Your task to perform on an android device: turn on javascript in the chrome app Image 0: 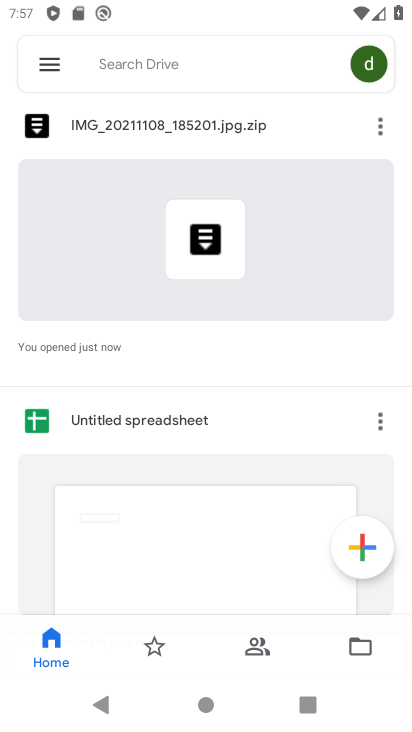
Step 0: press home button
Your task to perform on an android device: turn on javascript in the chrome app Image 1: 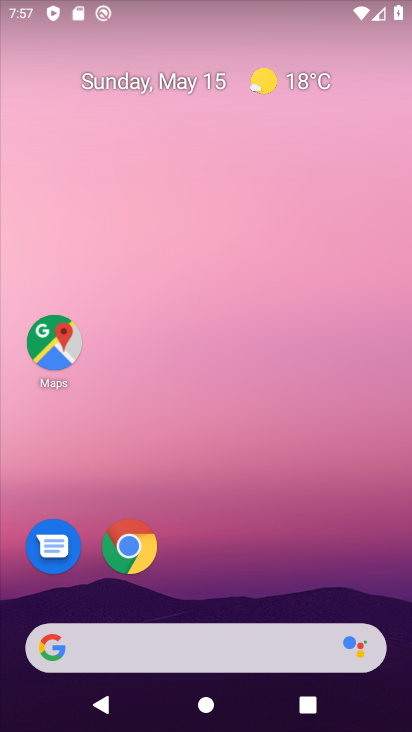
Step 1: drag from (291, 390) to (289, 219)
Your task to perform on an android device: turn on javascript in the chrome app Image 2: 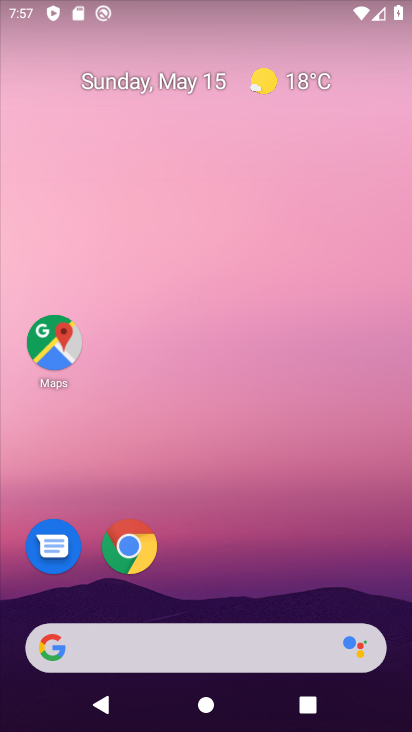
Step 2: drag from (245, 536) to (245, 180)
Your task to perform on an android device: turn on javascript in the chrome app Image 3: 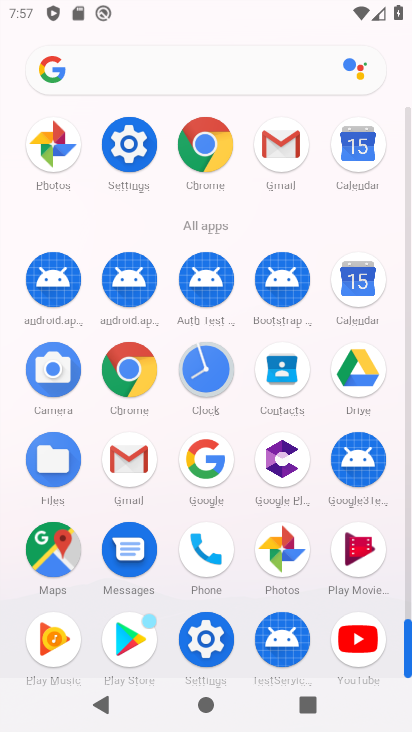
Step 3: click (199, 142)
Your task to perform on an android device: turn on javascript in the chrome app Image 4: 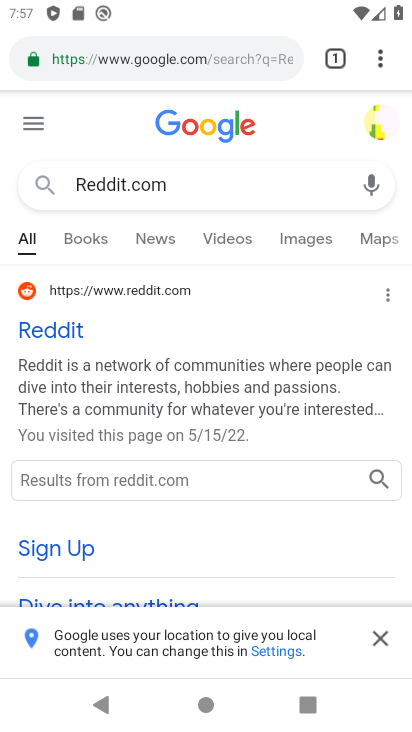
Step 4: click (366, 57)
Your task to perform on an android device: turn on javascript in the chrome app Image 5: 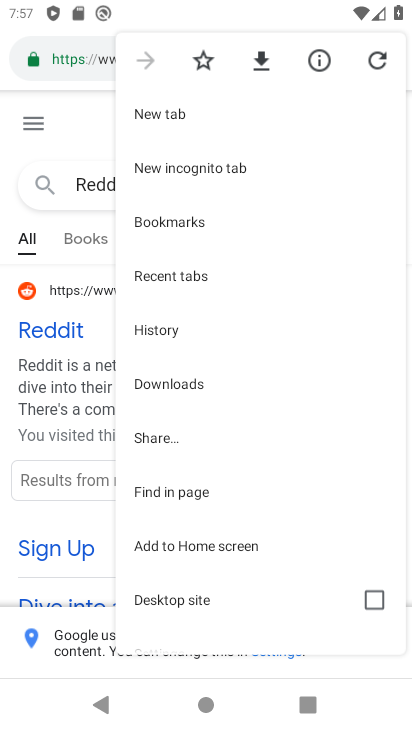
Step 5: drag from (213, 463) to (259, 204)
Your task to perform on an android device: turn on javascript in the chrome app Image 6: 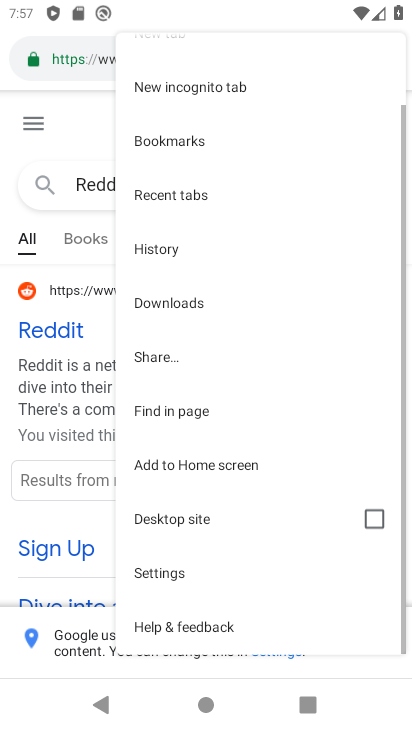
Step 6: click (152, 585)
Your task to perform on an android device: turn on javascript in the chrome app Image 7: 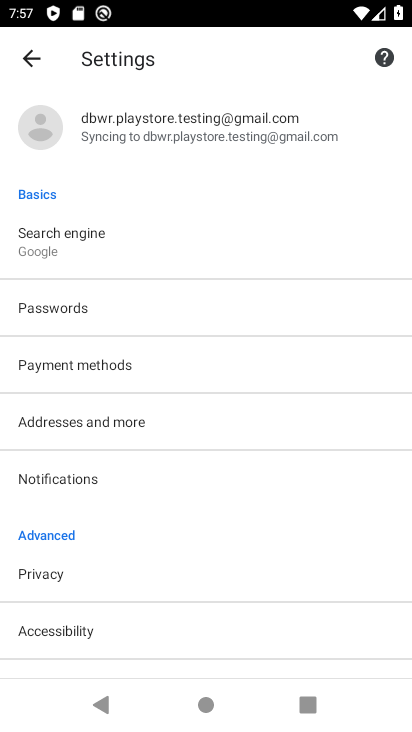
Step 7: drag from (128, 576) to (163, 333)
Your task to perform on an android device: turn on javascript in the chrome app Image 8: 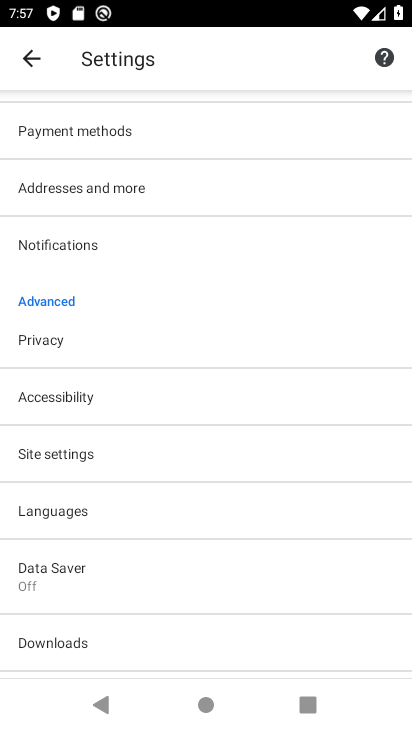
Step 8: drag from (92, 588) to (173, 461)
Your task to perform on an android device: turn on javascript in the chrome app Image 9: 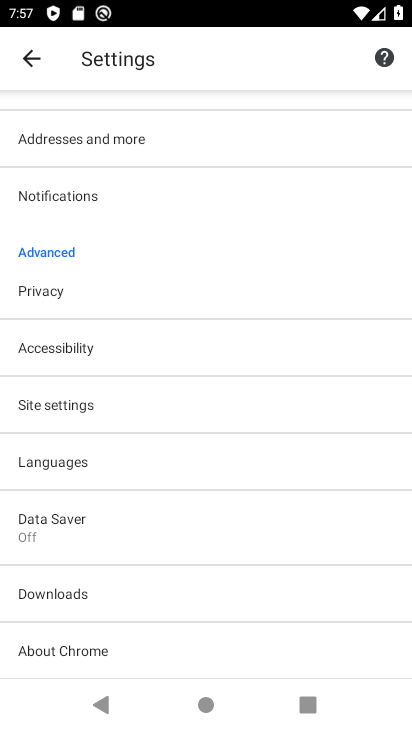
Step 9: click (139, 394)
Your task to perform on an android device: turn on javascript in the chrome app Image 10: 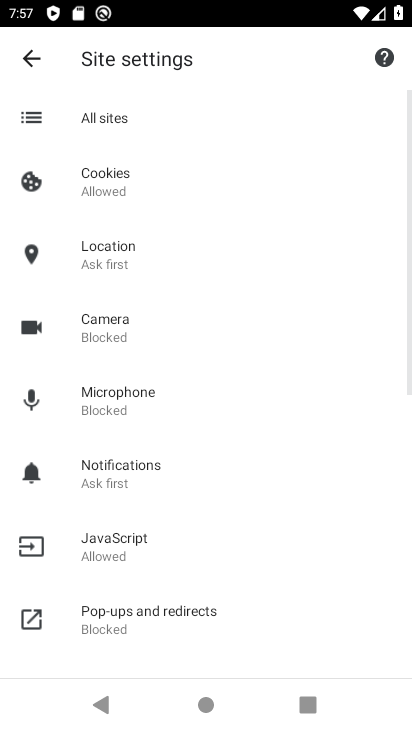
Step 10: click (127, 544)
Your task to perform on an android device: turn on javascript in the chrome app Image 11: 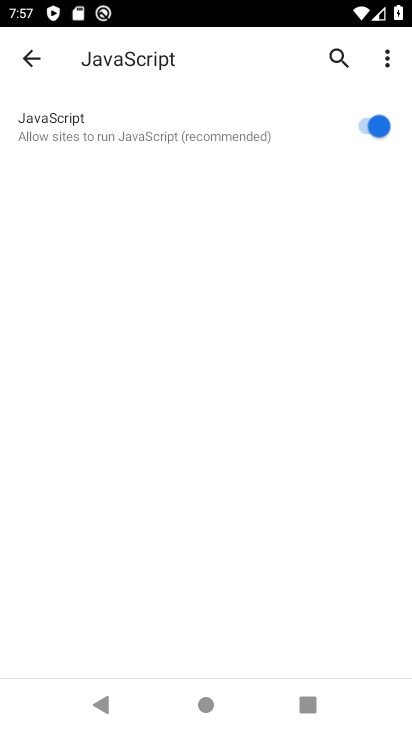
Step 11: task complete